Your task to perform on an android device: check out phone information Image 0: 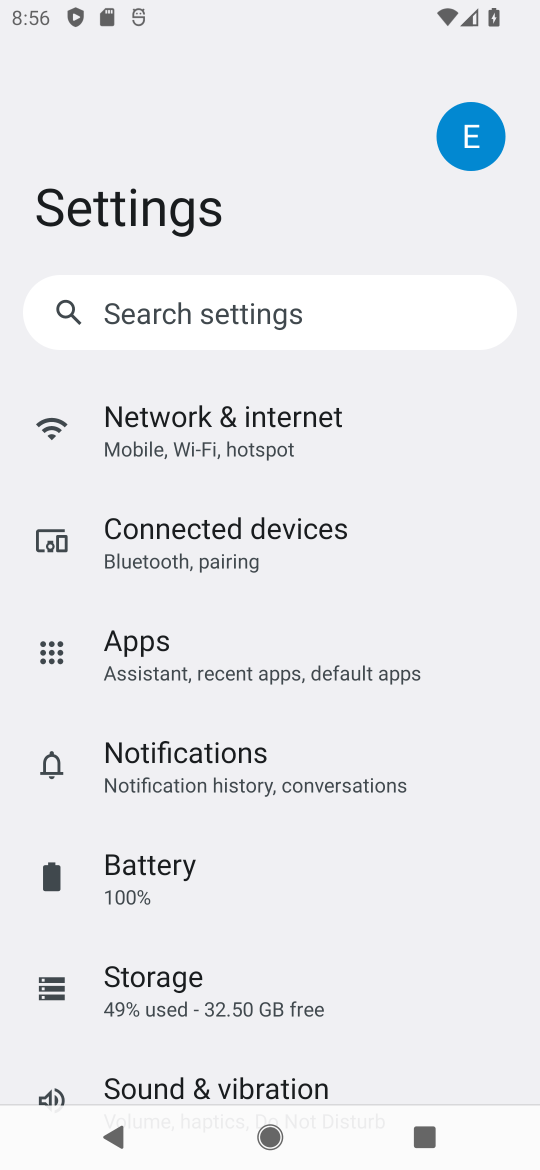
Step 0: drag from (280, 955) to (485, 156)
Your task to perform on an android device: check out phone information Image 1: 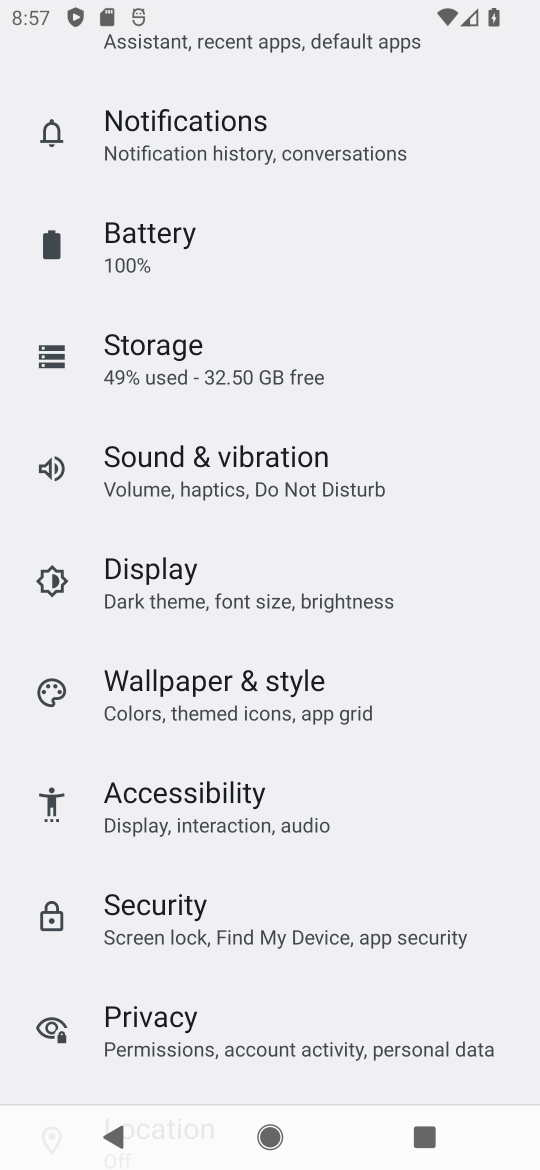
Step 1: drag from (219, 984) to (501, 181)
Your task to perform on an android device: check out phone information Image 2: 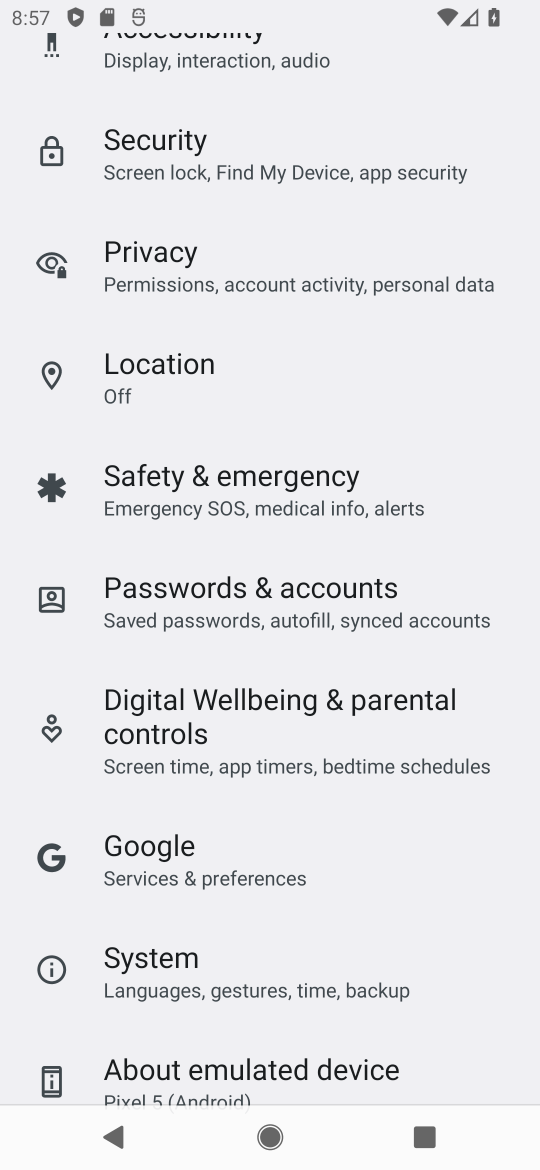
Step 2: drag from (294, 968) to (520, 356)
Your task to perform on an android device: check out phone information Image 3: 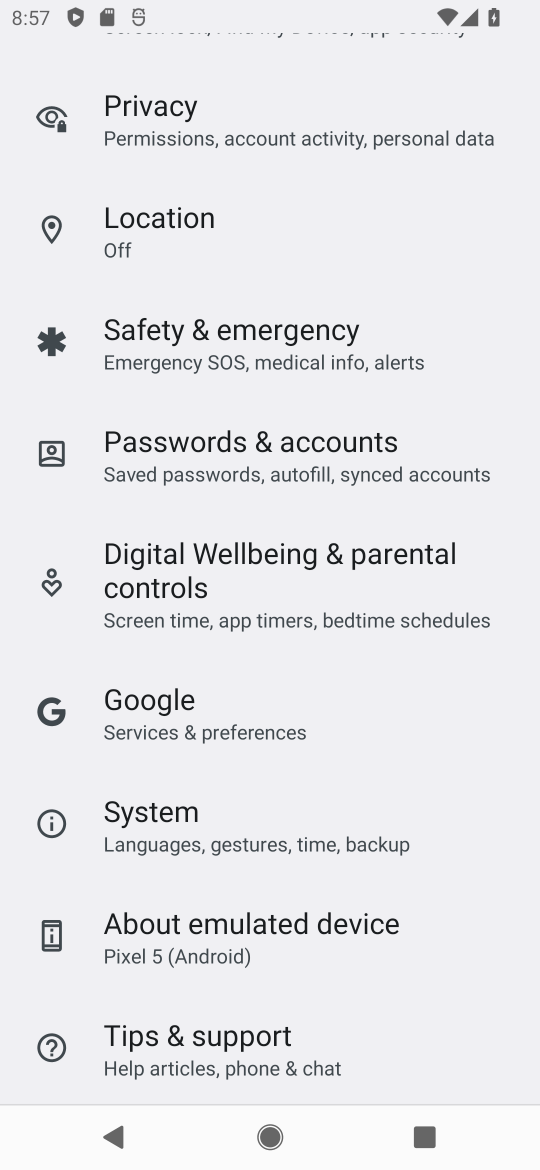
Step 3: click (259, 915)
Your task to perform on an android device: check out phone information Image 4: 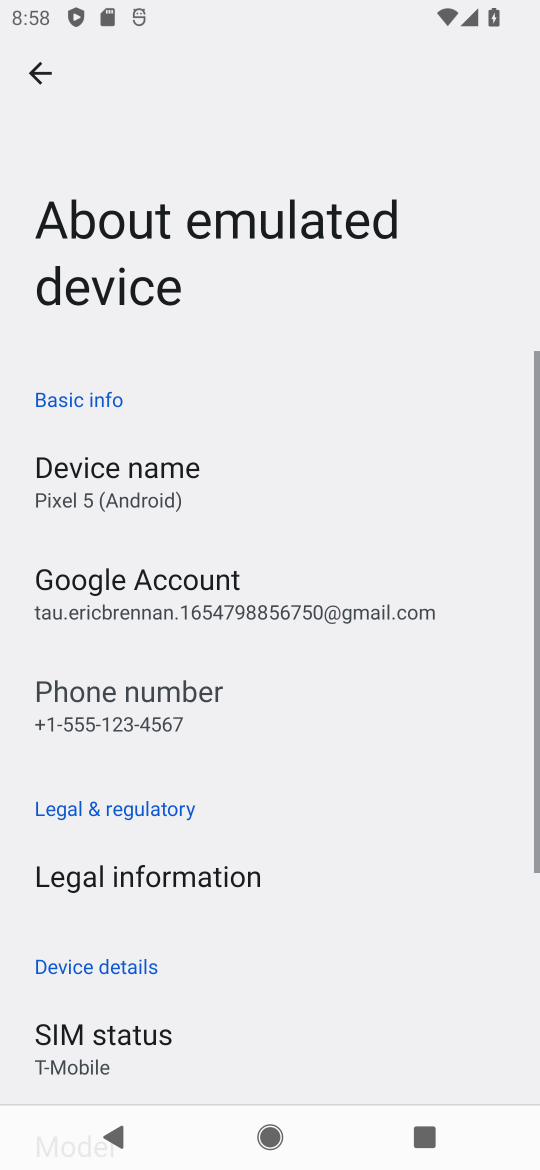
Step 4: task complete